Your task to perform on an android device: Open the web browser Image 0: 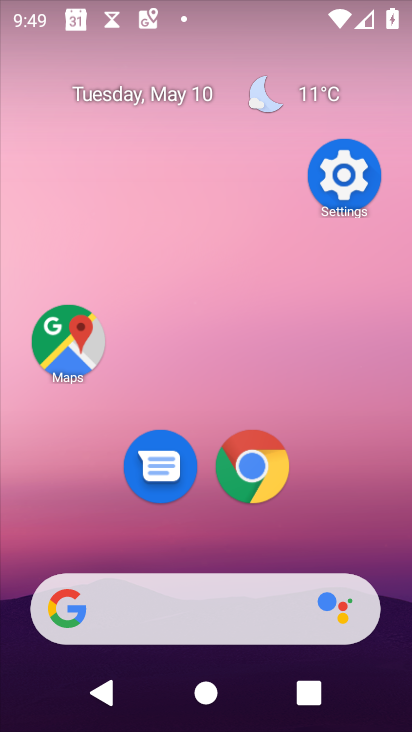
Step 0: click (259, 457)
Your task to perform on an android device: Open the web browser Image 1: 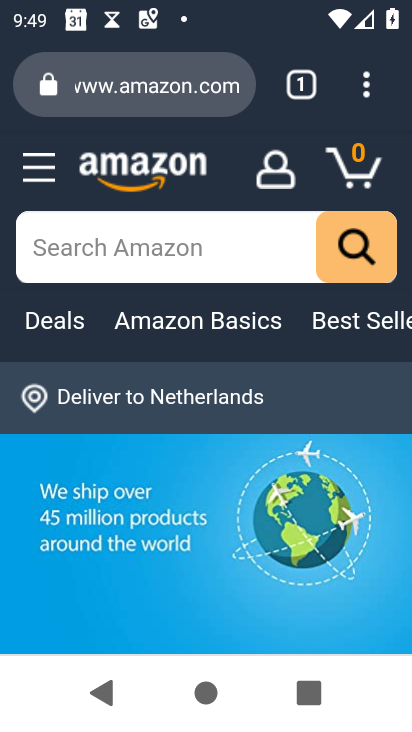
Step 1: task complete